Your task to perform on an android device: Is it going to rain this weekend? Image 0: 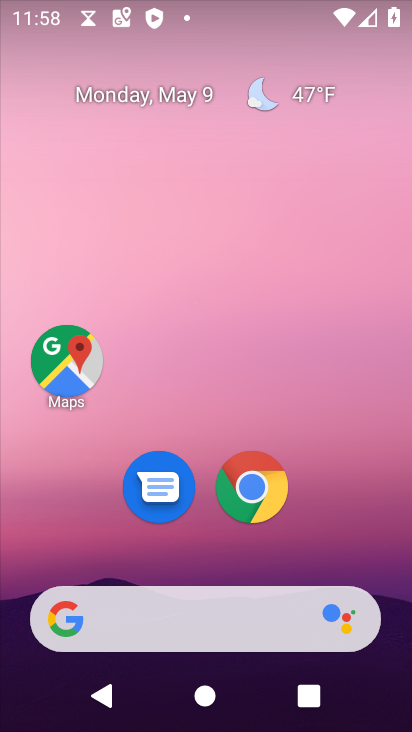
Step 0: click (294, 94)
Your task to perform on an android device: Is it going to rain this weekend? Image 1: 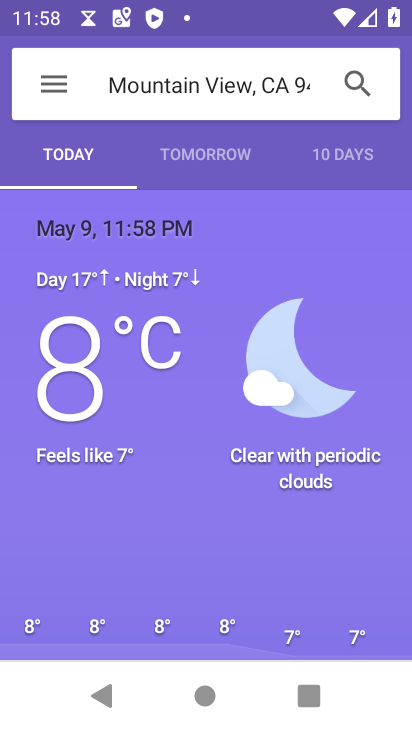
Step 1: task complete